Your task to perform on an android device: Open settings on Google Maps Image 0: 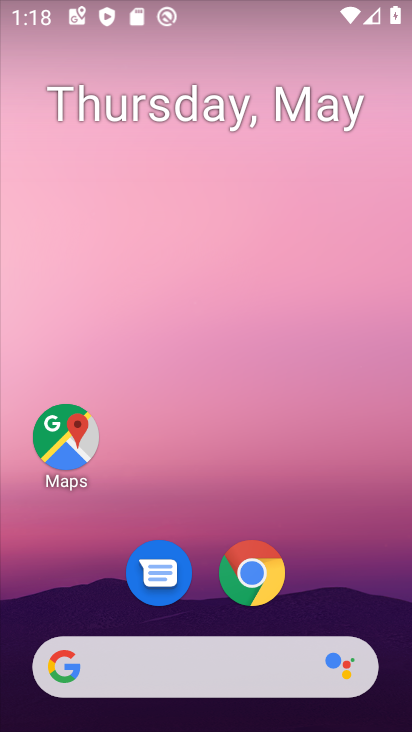
Step 0: drag from (191, 658) to (241, 152)
Your task to perform on an android device: Open settings on Google Maps Image 1: 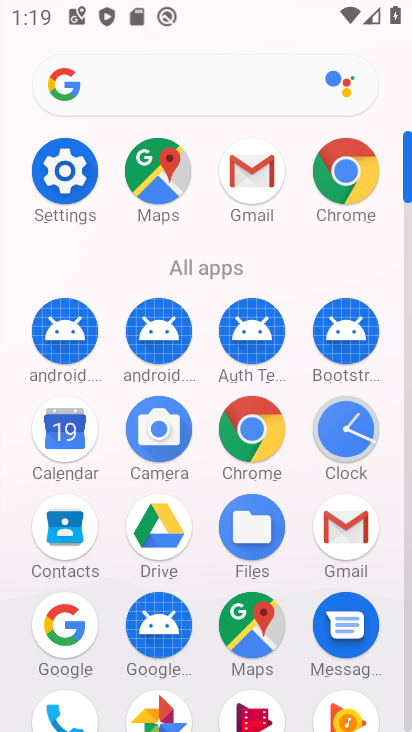
Step 1: click (258, 622)
Your task to perform on an android device: Open settings on Google Maps Image 2: 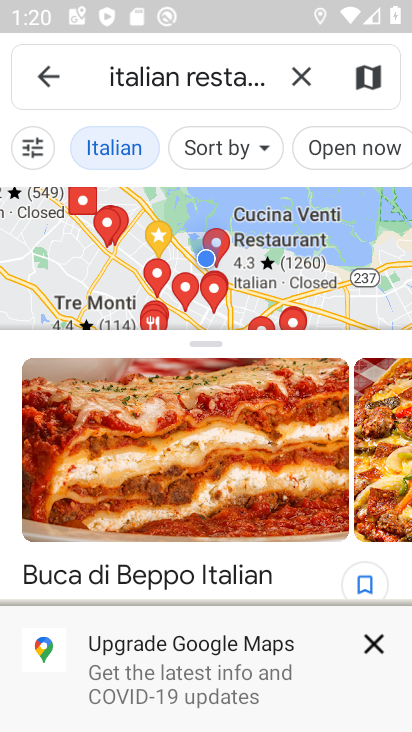
Step 2: click (47, 64)
Your task to perform on an android device: Open settings on Google Maps Image 3: 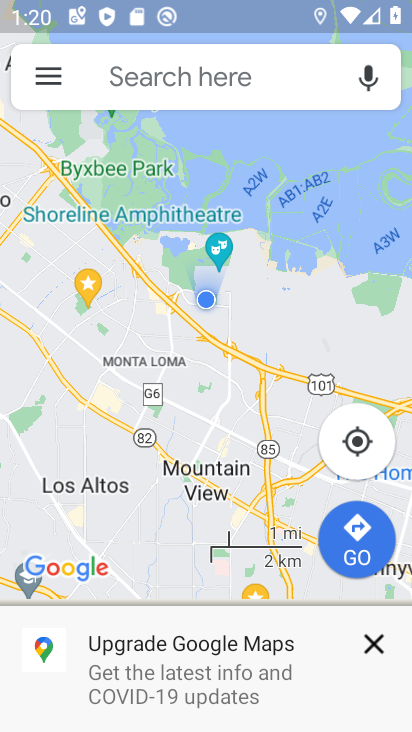
Step 3: click (47, 64)
Your task to perform on an android device: Open settings on Google Maps Image 4: 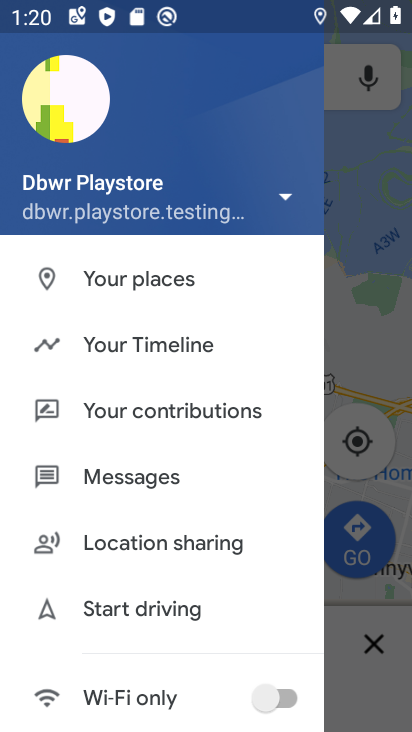
Step 4: drag from (102, 610) to (104, 236)
Your task to perform on an android device: Open settings on Google Maps Image 5: 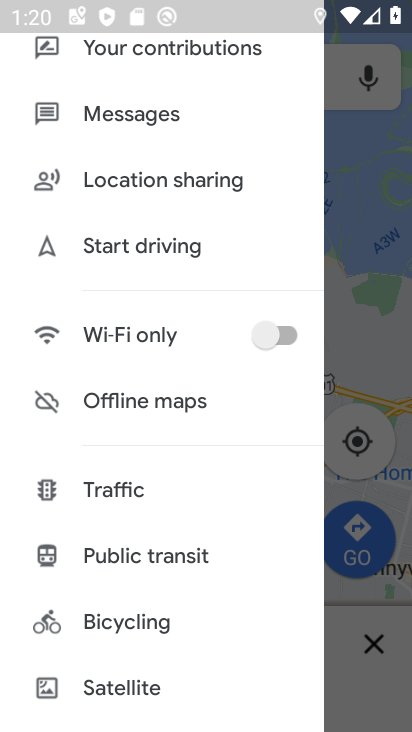
Step 5: drag from (154, 649) to (144, 215)
Your task to perform on an android device: Open settings on Google Maps Image 6: 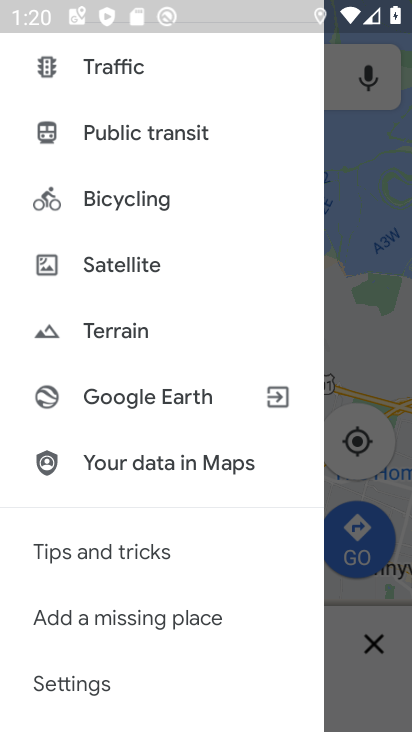
Step 6: click (104, 674)
Your task to perform on an android device: Open settings on Google Maps Image 7: 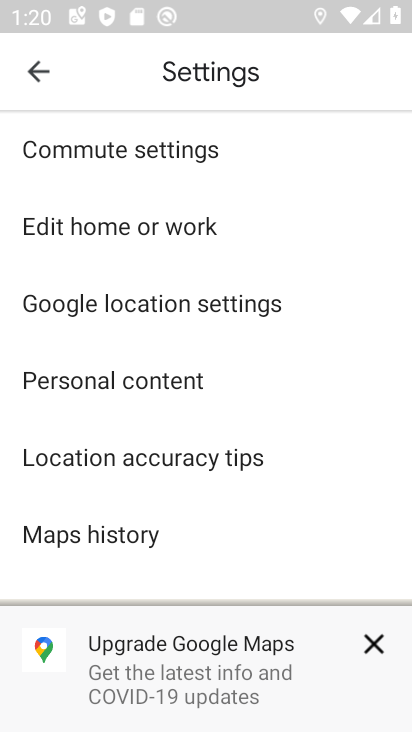
Step 7: task complete